Your task to perform on an android device: What is the news today? Image 0: 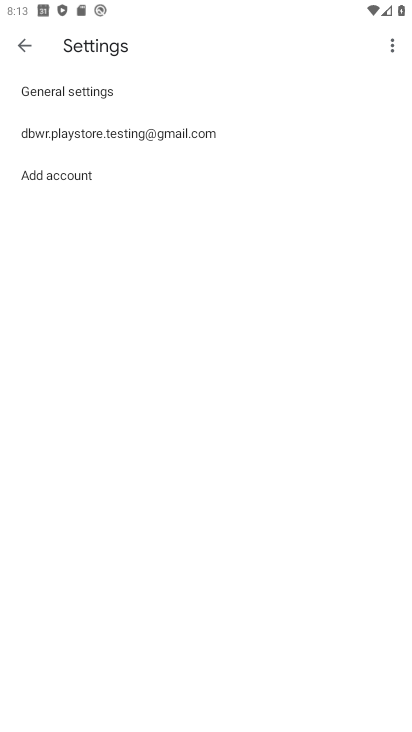
Step 0: press home button
Your task to perform on an android device: What is the news today? Image 1: 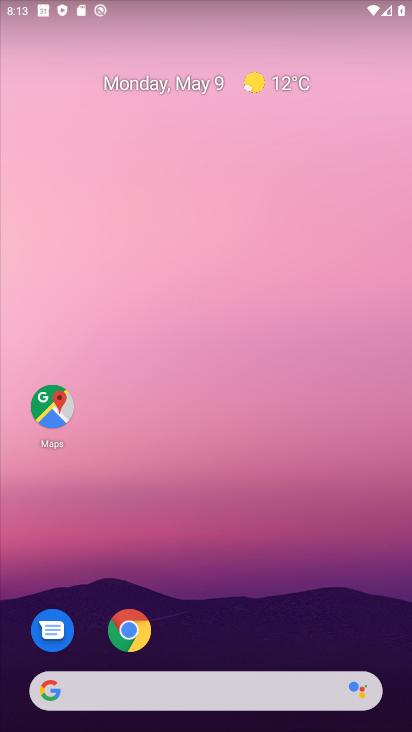
Step 1: drag from (162, 648) to (183, 310)
Your task to perform on an android device: What is the news today? Image 2: 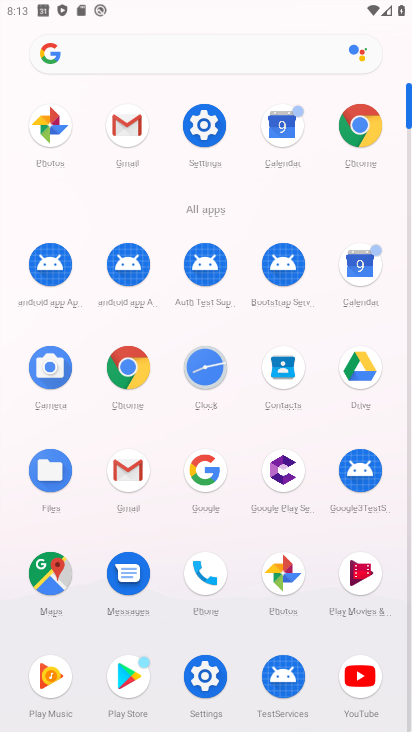
Step 2: click (195, 470)
Your task to perform on an android device: What is the news today? Image 3: 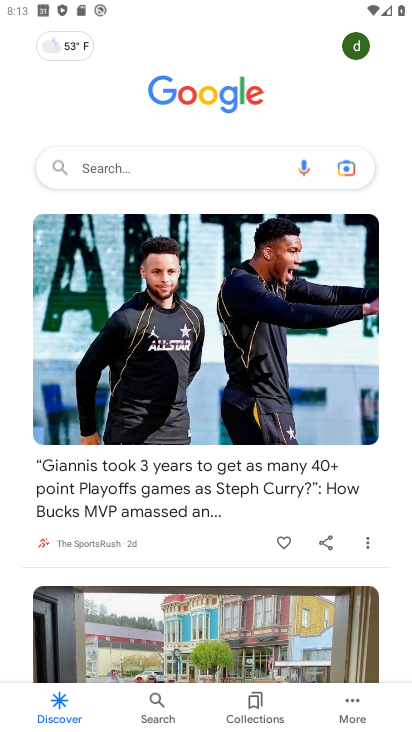
Step 3: click (103, 171)
Your task to perform on an android device: What is the news today? Image 4: 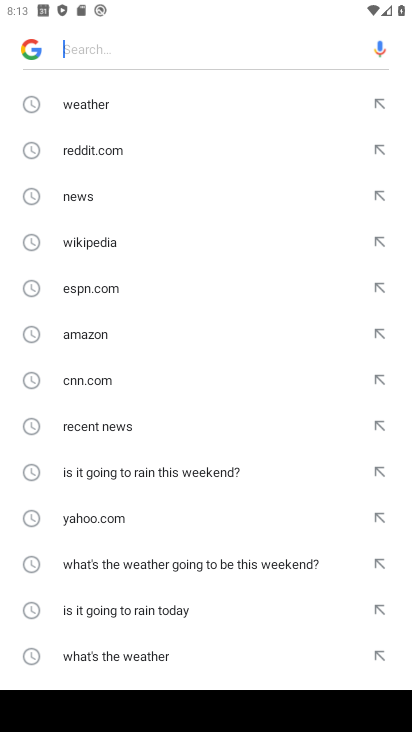
Step 4: type "news today"
Your task to perform on an android device: What is the news today? Image 5: 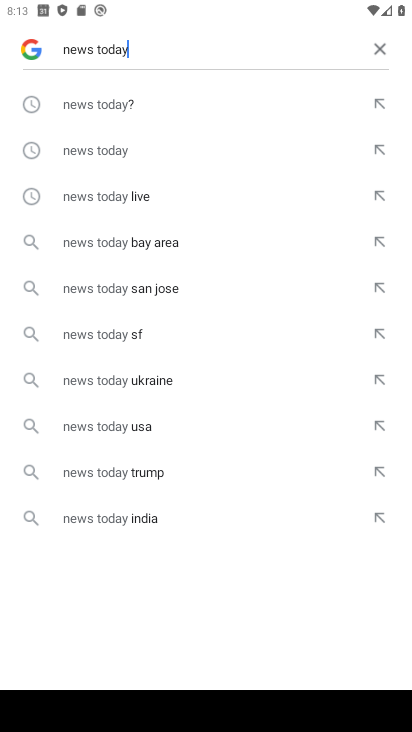
Step 5: click (115, 101)
Your task to perform on an android device: What is the news today? Image 6: 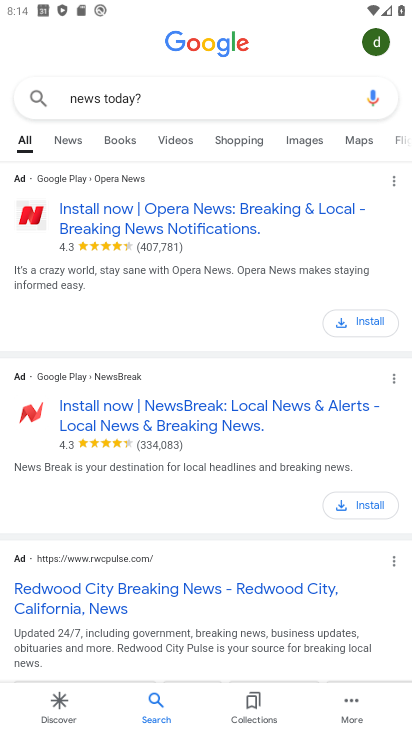
Step 6: drag from (126, 611) to (121, 401)
Your task to perform on an android device: What is the news today? Image 7: 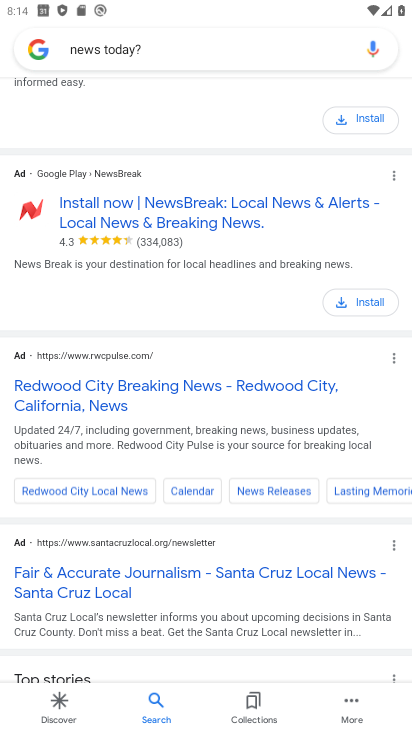
Step 7: click (115, 397)
Your task to perform on an android device: What is the news today? Image 8: 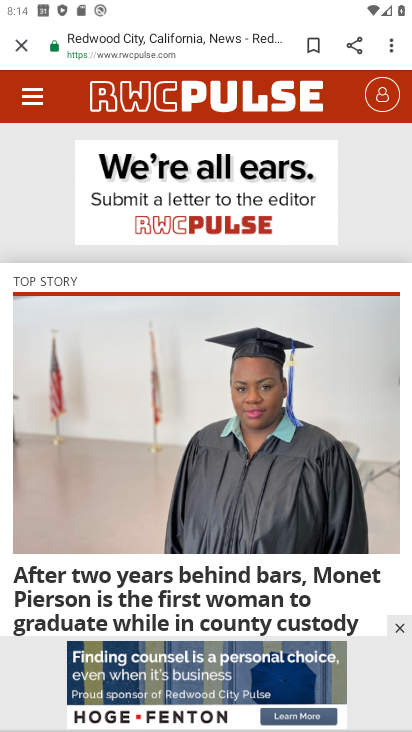
Step 8: task complete